Your task to perform on an android device: move an email to a new category in the gmail app Image 0: 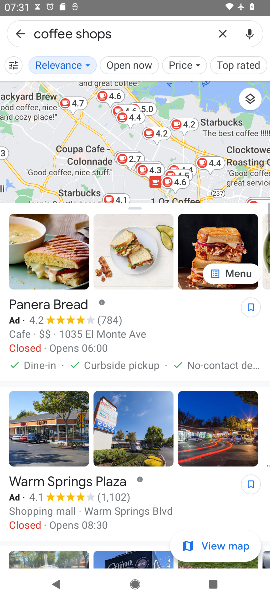
Step 0: press home button
Your task to perform on an android device: move an email to a new category in the gmail app Image 1: 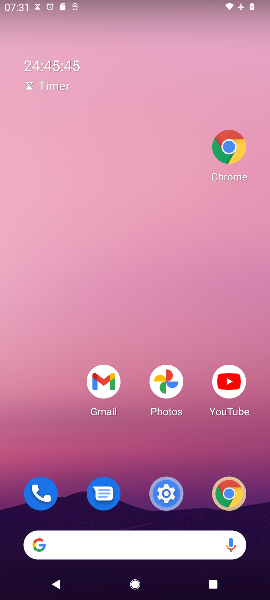
Step 1: click (93, 379)
Your task to perform on an android device: move an email to a new category in the gmail app Image 2: 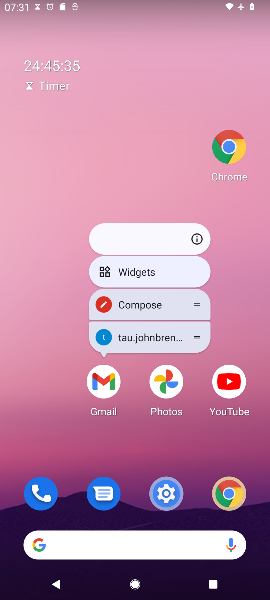
Step 2: click (99, 382)
Your task to perform on an android device: move an email to a new category in the gmail app Image 3: 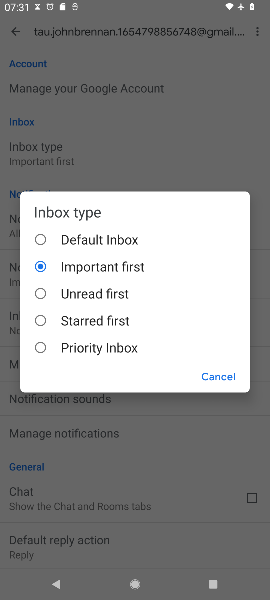
Step 3: click (212, 378)
Your task to perform on an android device: move an email to a new category in the gmail app Image 4: 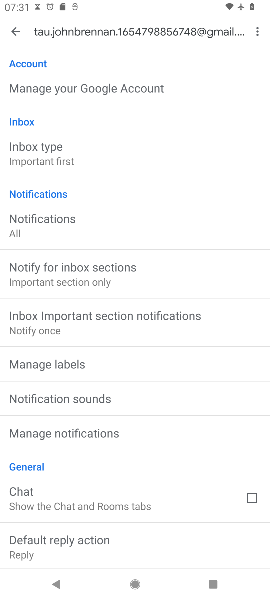
Step 4: press back button
Your task to perform on an android device: move an email to a new category in the gmail app Image 5: 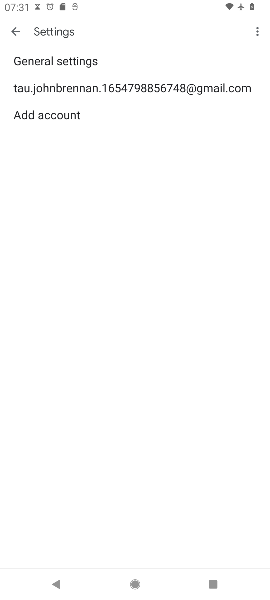
Step 5: press back button
Your task to perform on an android device: move an email to a new category in the gmail app Image 6: 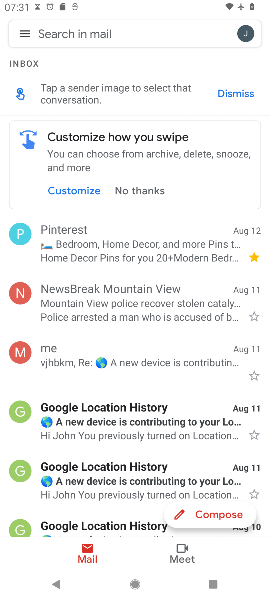
Step 6: click (189, 242)
Your task to perform on an android device: move an email to a new category in the gmail app Image 7: 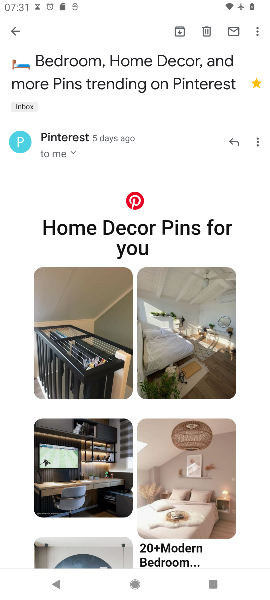
Step 7: click (263, 29)
Your task to perform on an android device: move an email to a new category in the gmail app Image 8: 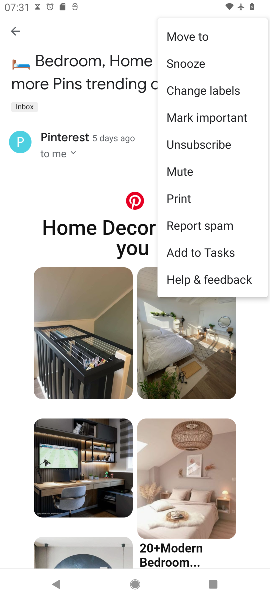
Step 8: click (184, 40)
Your task to perform on an android device: move an email to a new category in the gmail app Image 9: 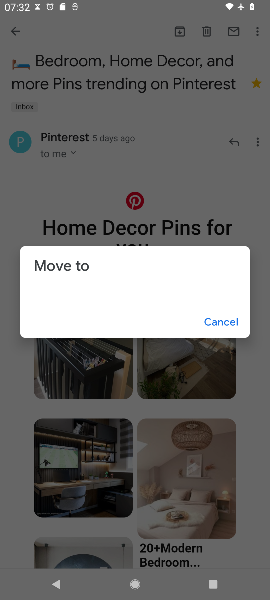
Step 9: task complete